Your task to perform on an android device: turn on sleep mode Image 0: 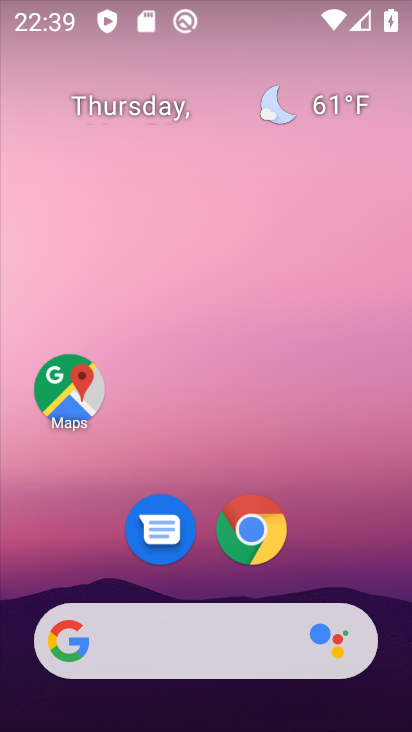
Step 0: drag from (336, 561) to (213, 75)
Your task to perform on an android device: turn on sleep mode Image 1: 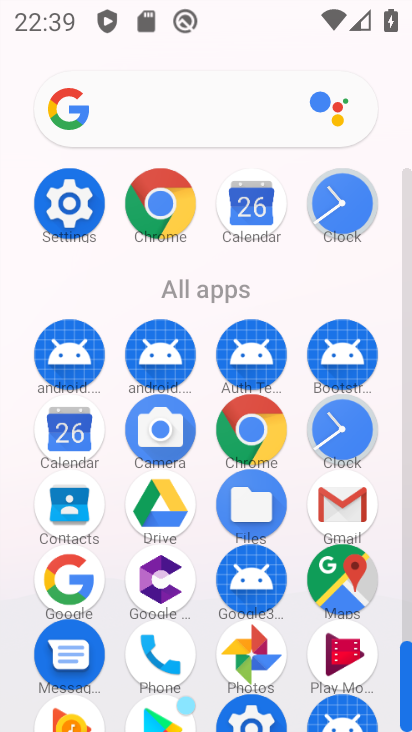
Step 1: click (86, 229)
Your task to perform on an android device: turn on sleep mode Image 2: 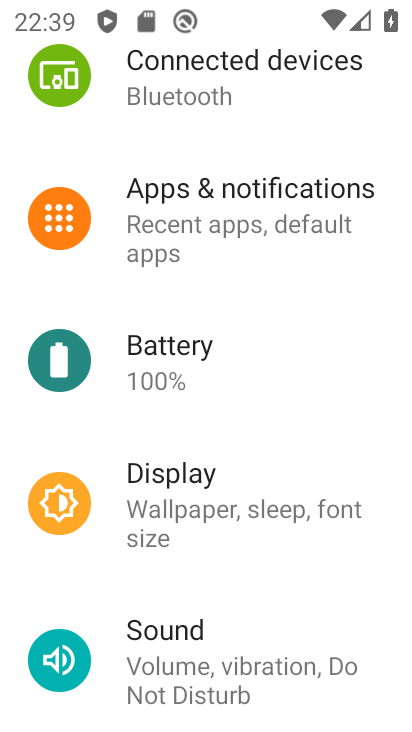
Step 2: click (245, 476)
Your task to perform on an android device: turn on sleep mode Image 3: 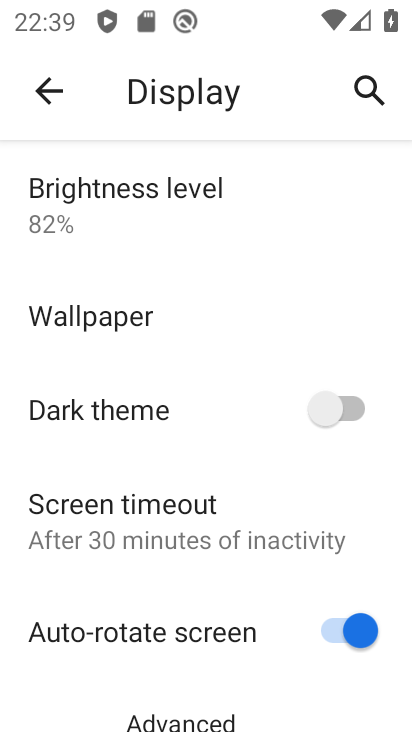
Step 3: click (184, 533)
Your task to perform on an android device: turn on sleep mode Image 4: 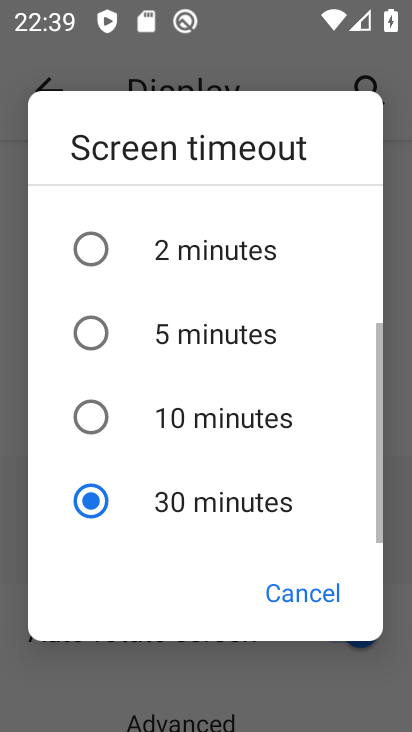
Step 4: click (234, 383)
Your task to perform on an android device: turn on sleep mode Image 5: 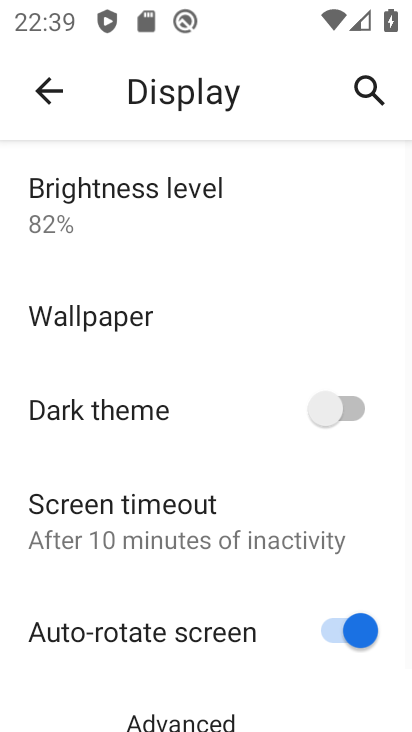
Step 5: task complete